Your task to perform on an android device: turn off translation in the chrome app Image 0: 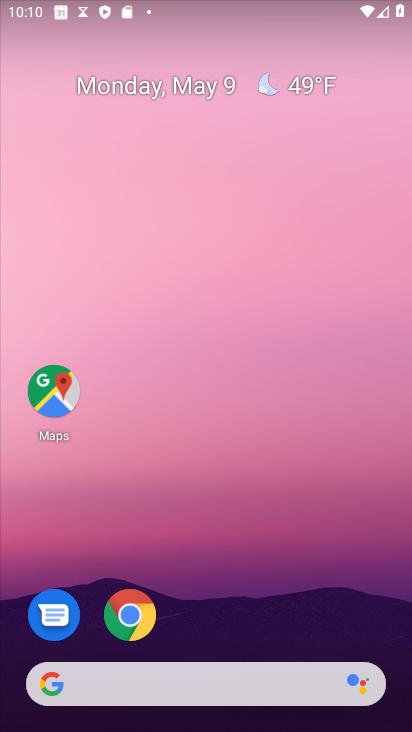
Step 0: click (132, 622)
Your task to perform on an android device: turn off translation in the chrome app Image 1: 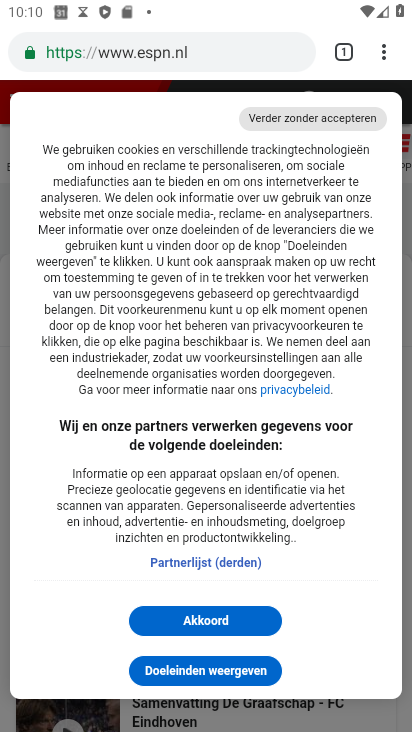
Step 1: drag from (388, 54) to (227, 654)
Your task to perform on an android device: turn off translation in the chrome app Image 2: 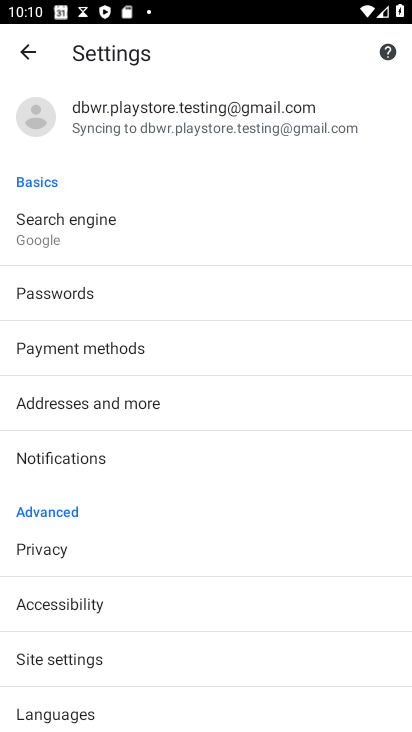
Step 2: drag from (171, 707) to (190, 395)
Your task to perform on an android device: turn off translation in the chrome app Image 3: 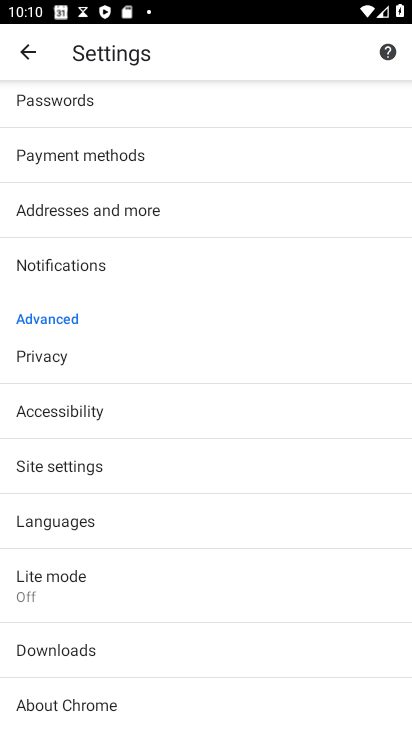
Step 3: click (103, 521)
Your task to perform on an android device: turn off translation in the chrome app Image 4: 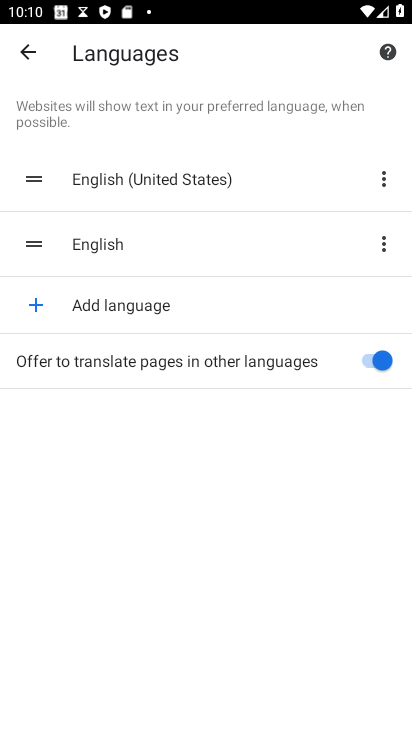
Step 4: click (377, 366)
Your task to perform on an android device: turn off translation in the chrome app Image 5: 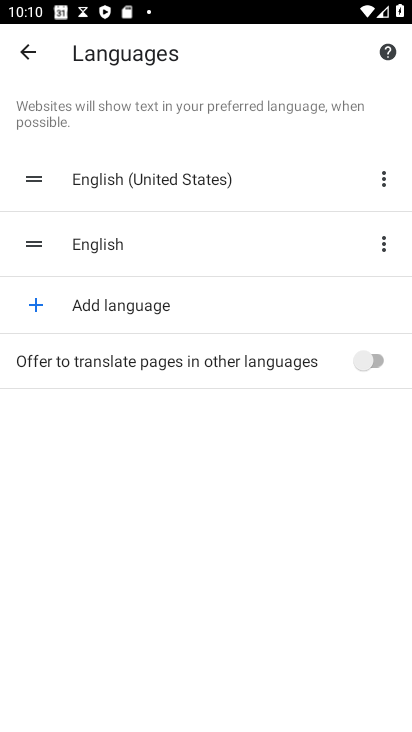
Step 5: task complete